Your task to perform on an android device: Show me the alarms in the clock app Image 0: 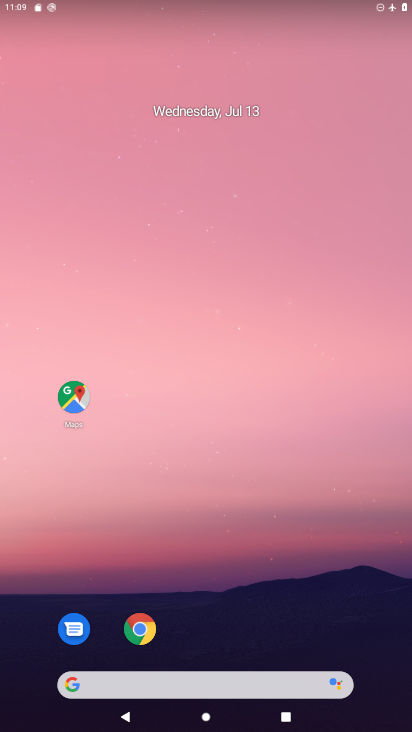
Step 0: drag from (383, 703) to (194, 0)
Your task to perform on an android device: Show me the alarms in the clock app Image 1: 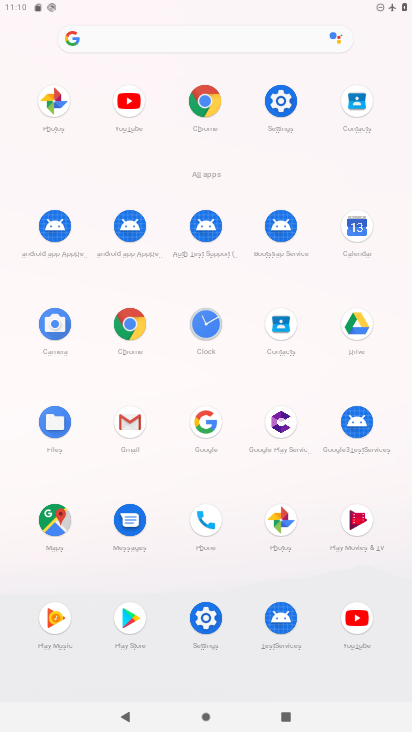
Step 1: click (211, 334)
Your task to perform on an android device: Show me the alarms in the clock app Image 2: 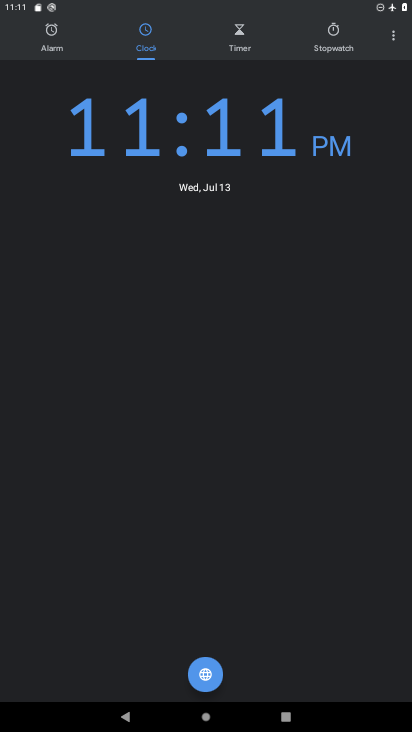
Step 2: click (63, 41)
Your task to perform on an android device: Show me the alarms in the clock app Image 3: 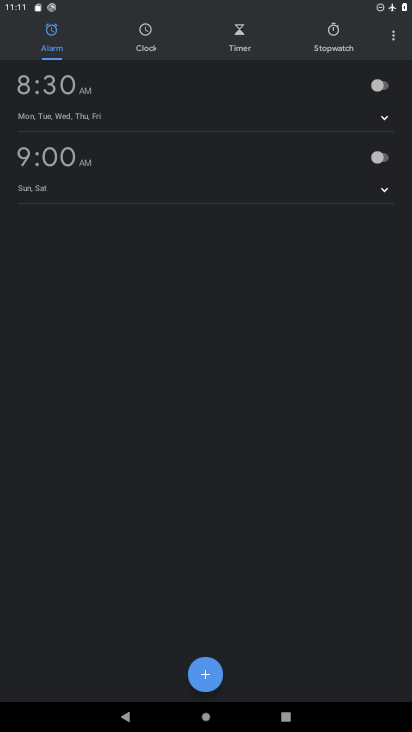
Step 3: task complete